Your task to perform on an android device: toggle show notifications on the lock screen Image 0: 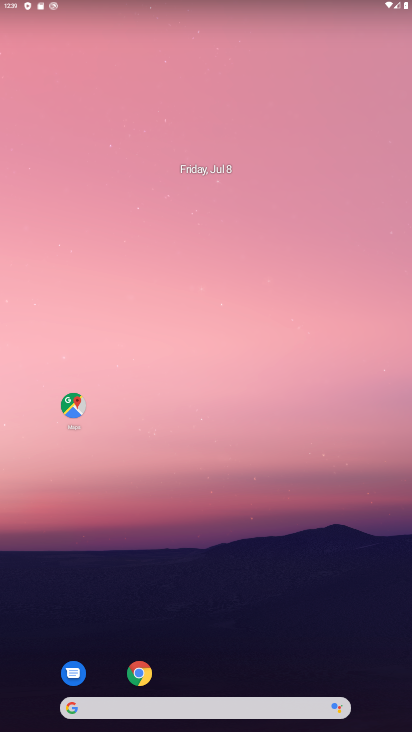
Step 0: drag from (243, 608) to (293, 57)
Your task to perform on an android device: toggle show notifications on the lock screen Image 1: 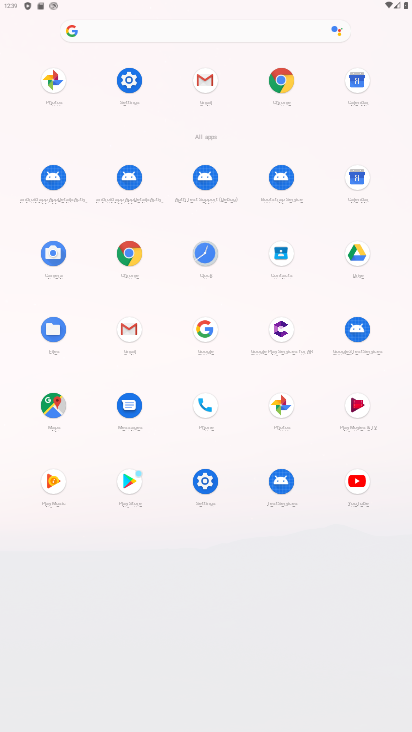
Step 1: click (125, 78)
Your task to perform on an android device: toggle show notifications on the lock screen Image 2: 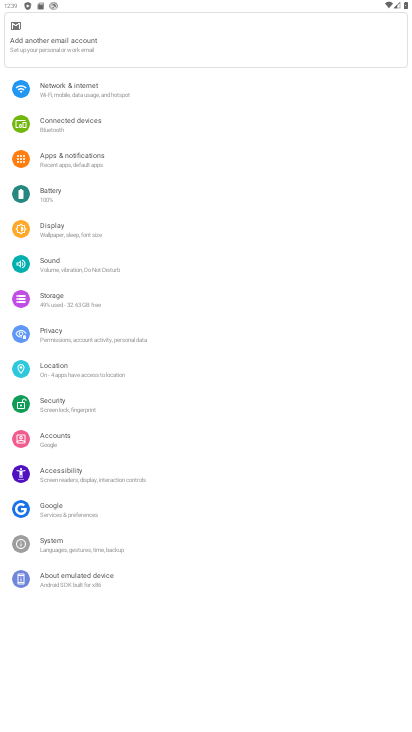
Step 2: click (68, 155)
Your task to perform on an android device: toggle show notifications on the lock screen Image 3: 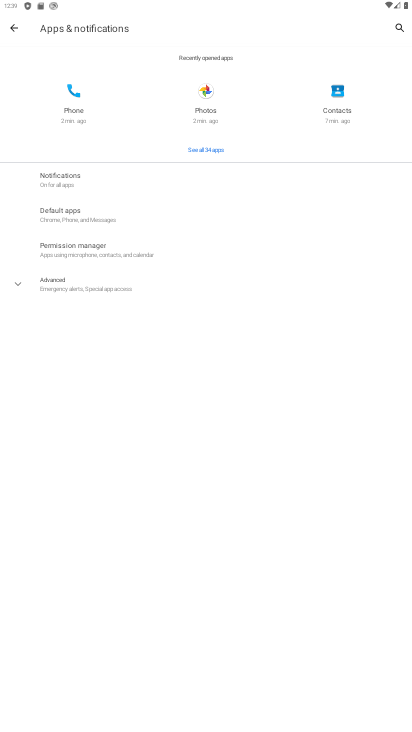
Step 3: click (77, 181)
Your task to perform on an android device: toggle show notifications on the lock screen Image 4: 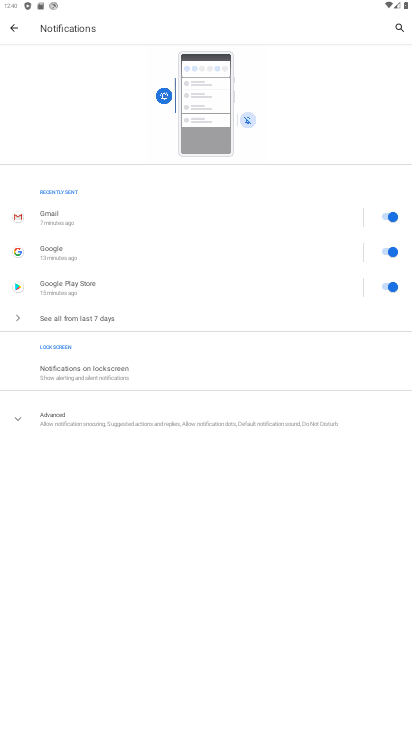
Step 4: click (104, 369)
Your task to perform on an android device: toggle show notifications on the lock screen Image 5: 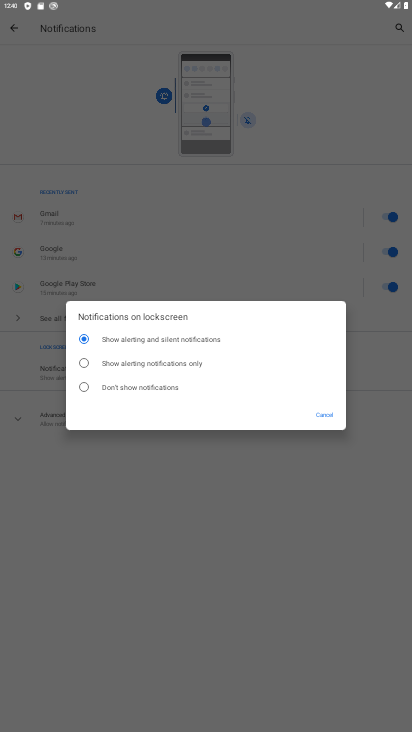
Step 5: click (86, 361)
Your task to perform on an android device: toggle show notifications on the lock screen Image 6: 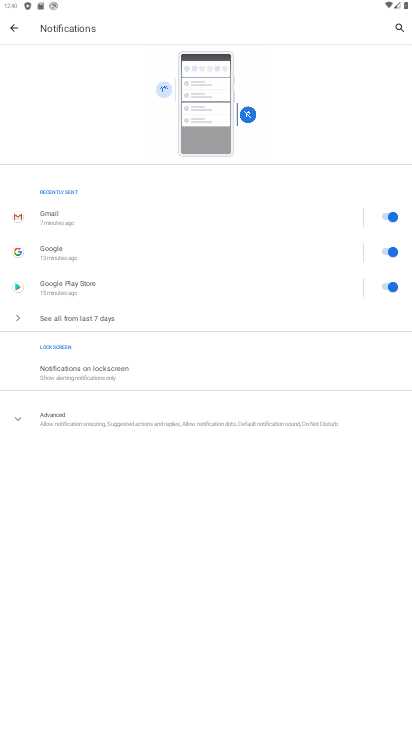
Step 6: task complete